Your task to perform on an android device: Search for a 100 ft extension cord Image 0: 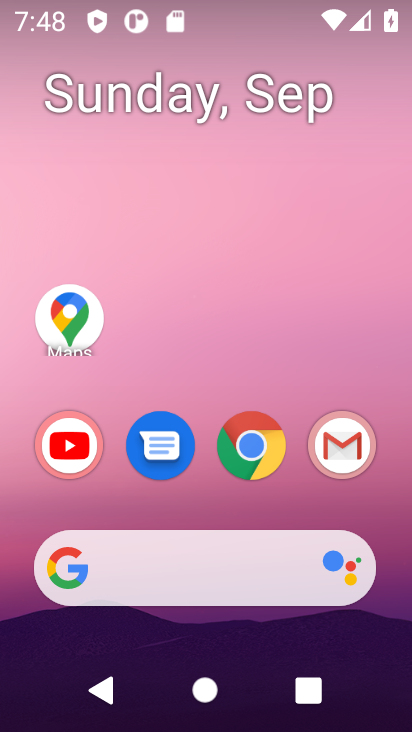
Step 0: drag from (329, 263) to (366, 97)
Your task to perform on an android device: Search for a 100 ft extension cord Image 1: 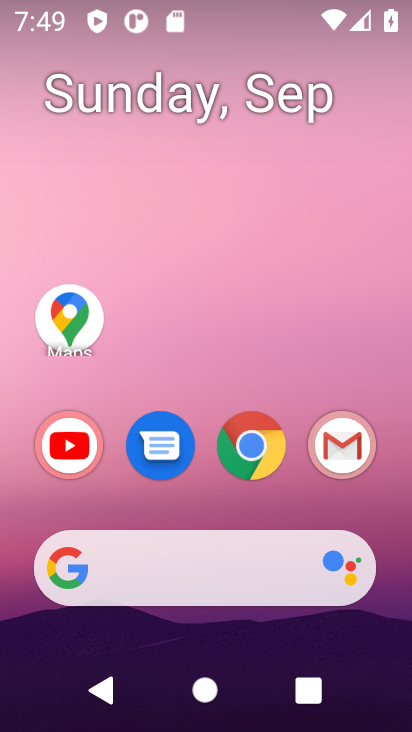
Step 1: drag from (224, 511) to (240, 90)
Your task to perform on an android device: Search for a 100 ft extension cord Image 2: 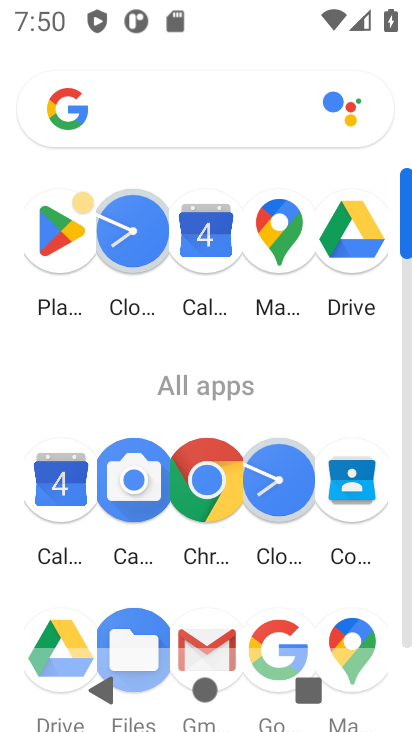
Step 2: click (197, 515)
Your task to perform on an android device: Search for a 100 ft extension cord Image 3: 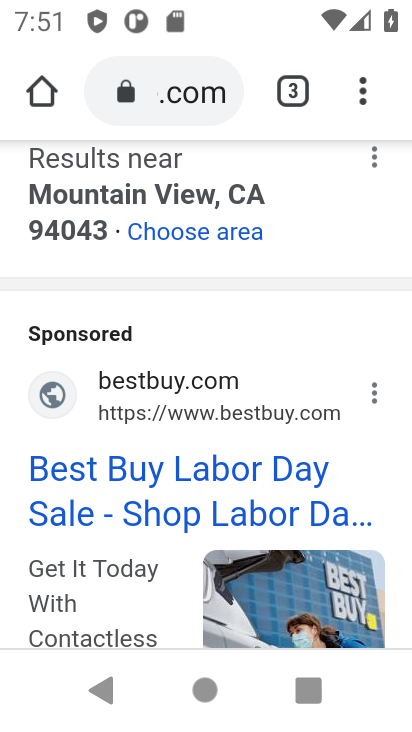
Step 3: click (171, 77)
Your task to perform on an android device: Search for a 100 ft extension cord Image 4: 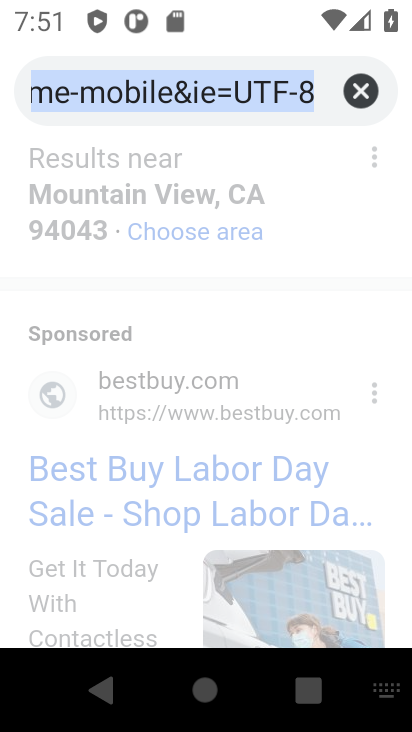
Step 4: click (357, 93)
Your task to perform on an android device: Search for a 100 ft extension cord Image 5: 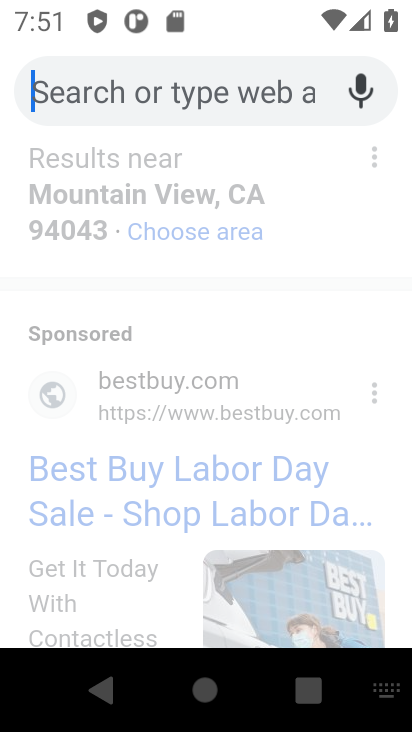
Step 5: type "100 ft extension cord"
Your task to perform on an android device: Search for a 100 ft extension cord Image 6: 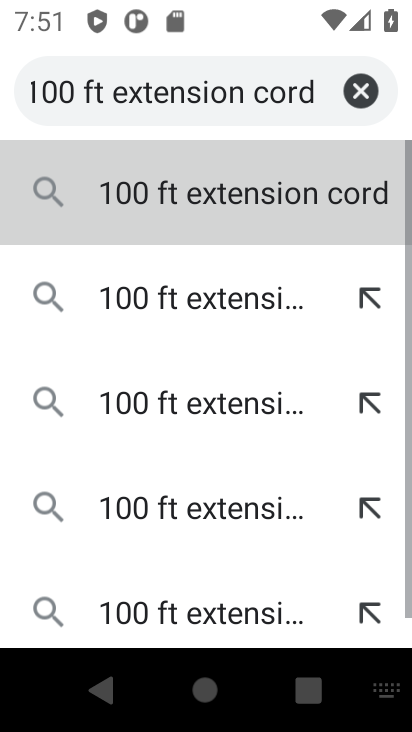
Step 6: press enter
Your task to perform on an android device: Search for a 100 ft extension cord Image 7: 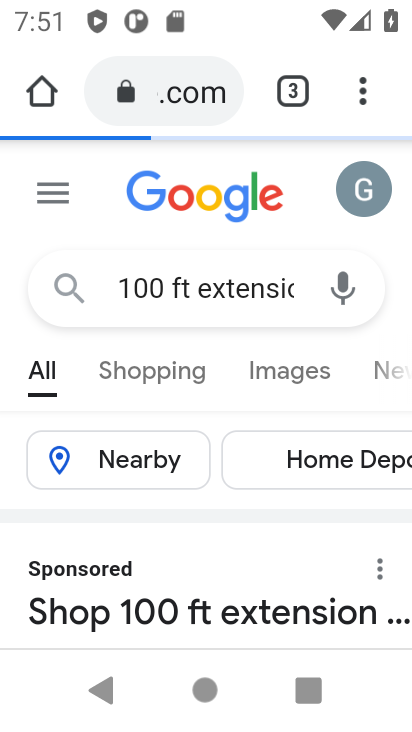
Step 7: click (251, 308)
Your task to perform on an android device: Search for a 100 ft extension cord Image 8: 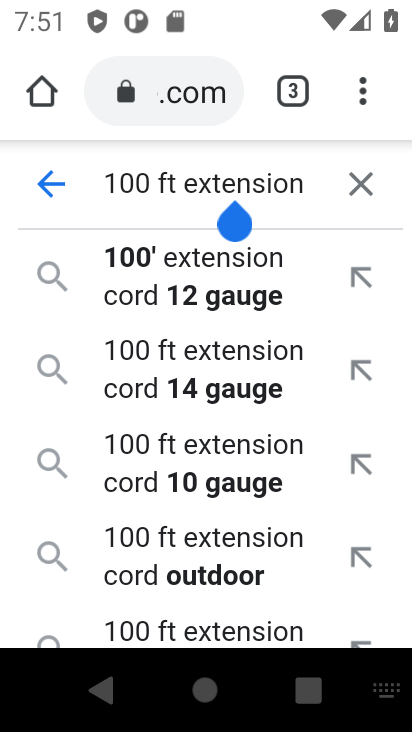
Step 8: press enter
Your task to perform on an android device: Search for a 100 ft extension cord Image 9: 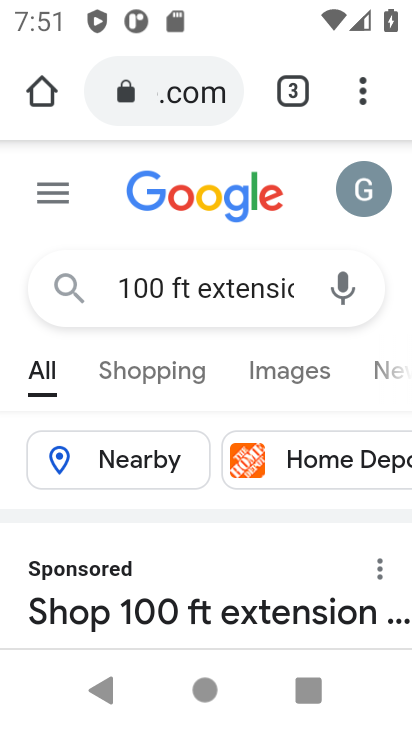
Step 9: drag from (387, 493) to (405, 254)
Your task to perform on an android device: Search for a 100 ft extension cord Image 10: 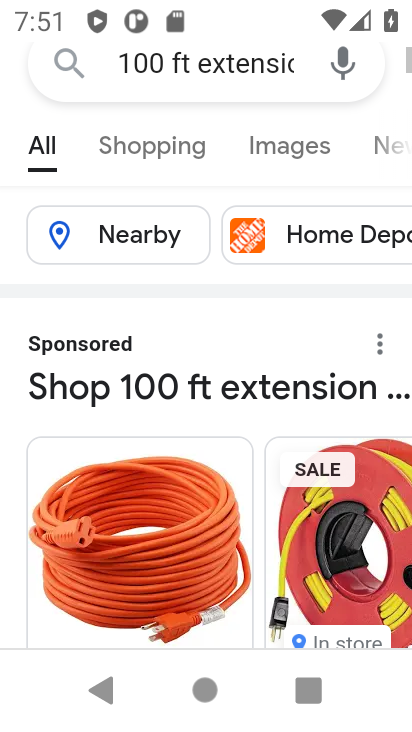
Step 10: drag from (349, 414) to (411, 216)
Your task to perform on an android device: Search for a 100 ft extension cord Image 11: 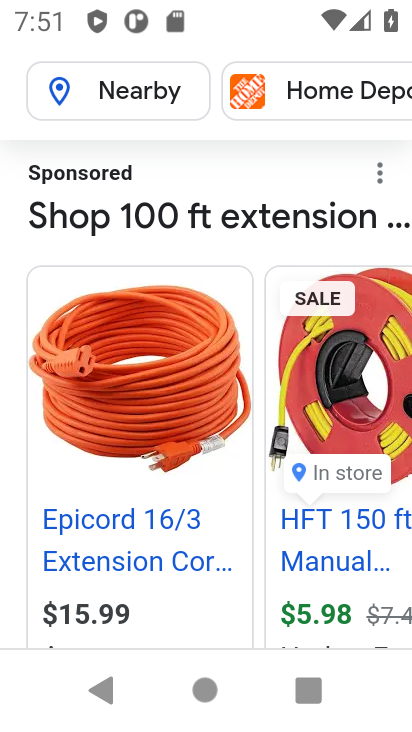
Step 11: click (235, 221)
Your task to perform on an android device: Search for a 100 ft extension cord Image 12: 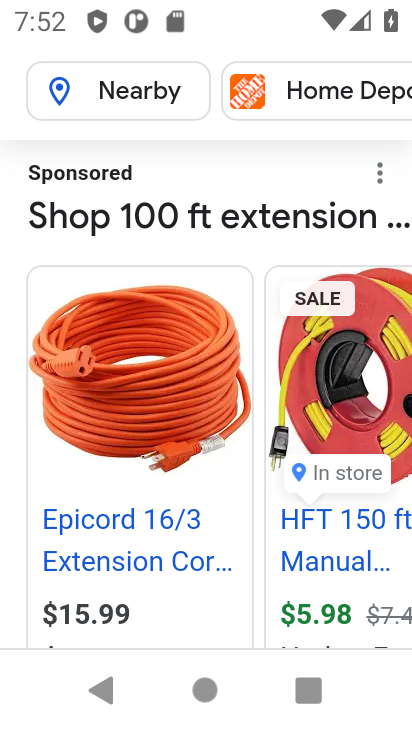
Step 12: task complete